Your task to perform on an android device: What's on my calendar tomorrow? Image 0: 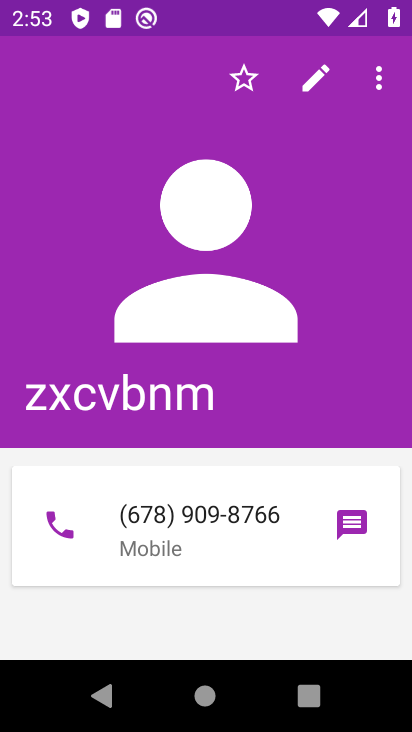
Step 0: press home button
Your task to perform on an android device: What's on my calendar tomorrow? Image 1: 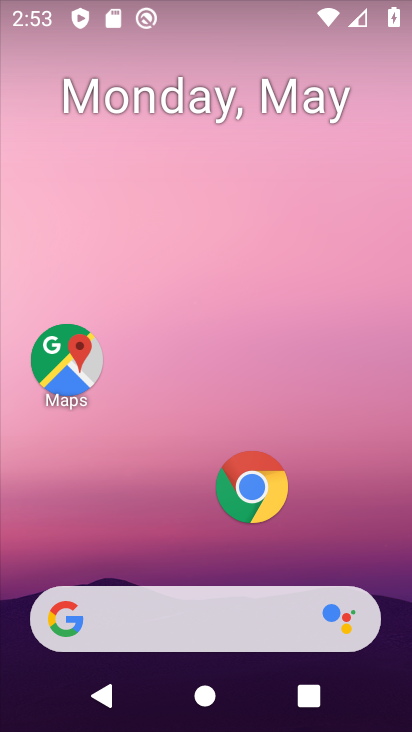
Step 1: drag from (160, 553) to (154, 86)
Your task to perform on an android device: What's on my calendar tomorrow? Image 2: 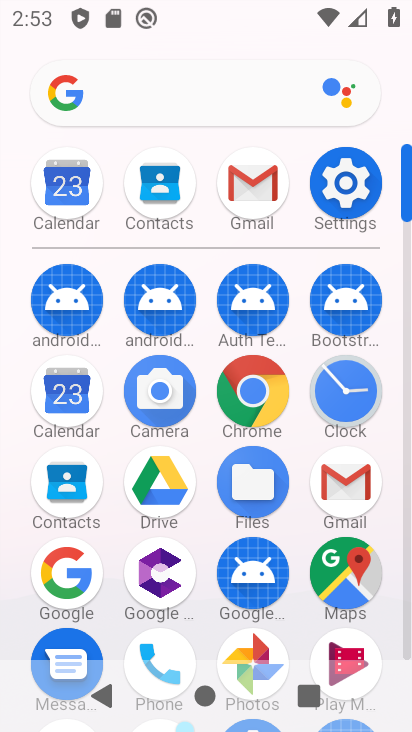
Step 2: click (55, 385)
Your task to perform on an android device: What's on my calendar tomorrow? Image 3: 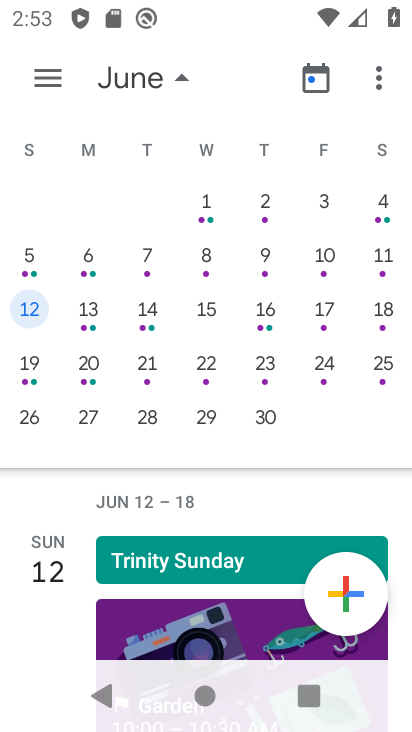
Step 3: drag from (82, 392) to (387, 366)
Your task to perform on an android device: What's on my calendar tomorrow? Image 4: 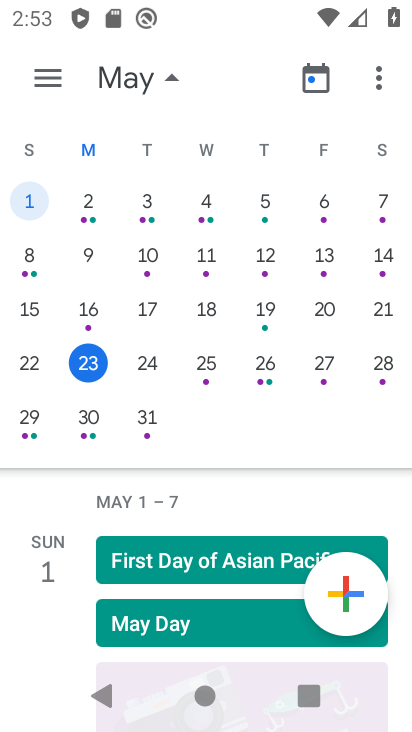
Step 4: click (84, 373)
Your task to perform on an android device: What's on my calendar tomorrow? Image 5: 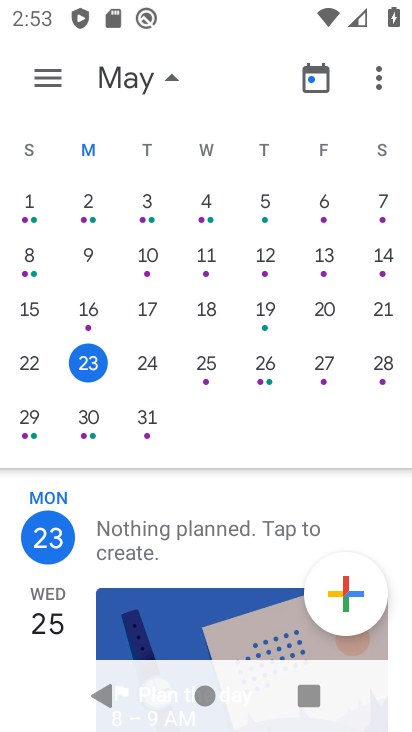
Step 5: click (163, 363)
Your task to perform on an android device: What's on my calendar tomorrow? Image 6: 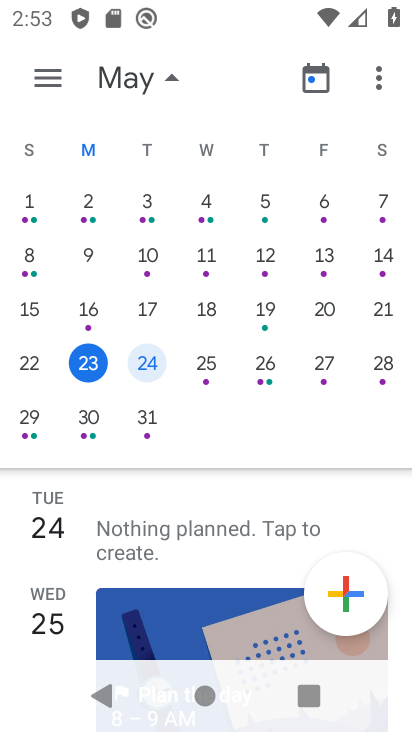
Step 6: task complete